Your task to perform on an android device: change the clock display to show seconds Image 0: 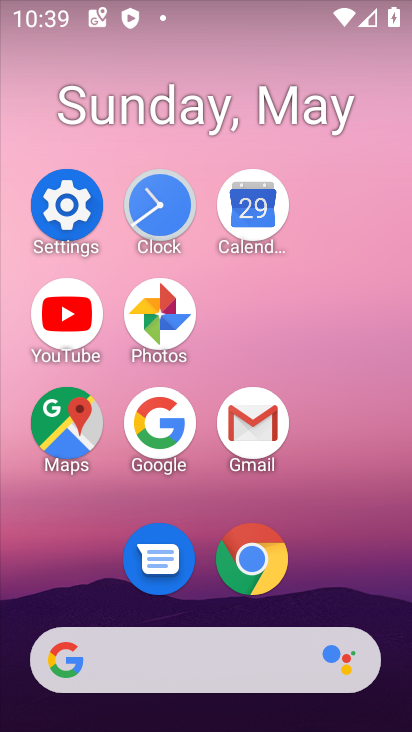
Step 0: click (154, 236)
Your task to perform on an android device: change the clock display to show seconds Image 1: 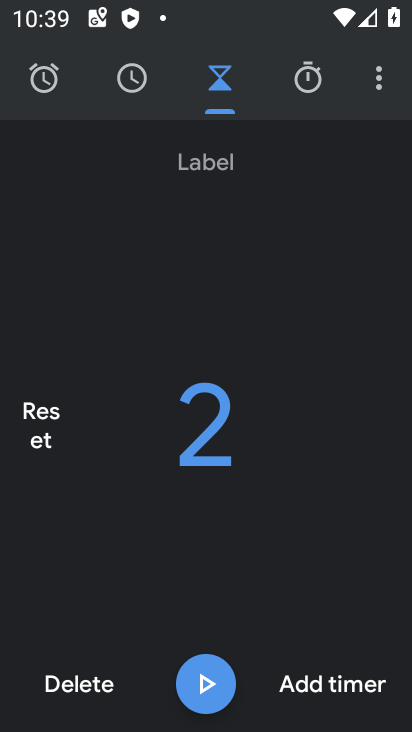
Step 1: click (396, 84)
Your task to perform on an android device: change the clock display to show seconds Image 2: 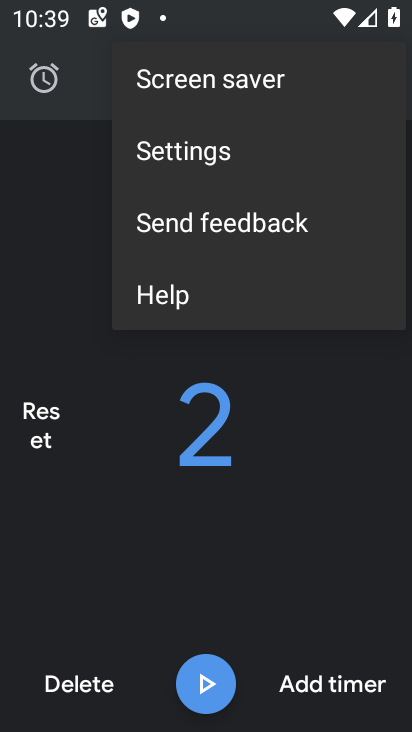
Step 2: click (215, 140)
Your task to perform on an android device: change the clock display to show seconds Image 3: 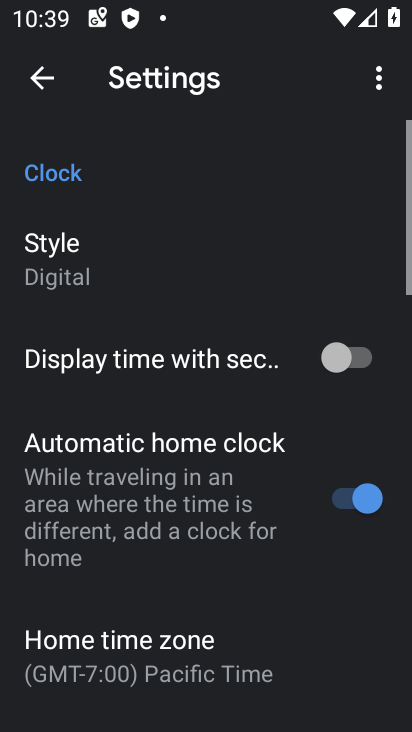
Step 3: click (369, 398)
Your task to perform on an android device: change the clock display to show seconds Image 4: 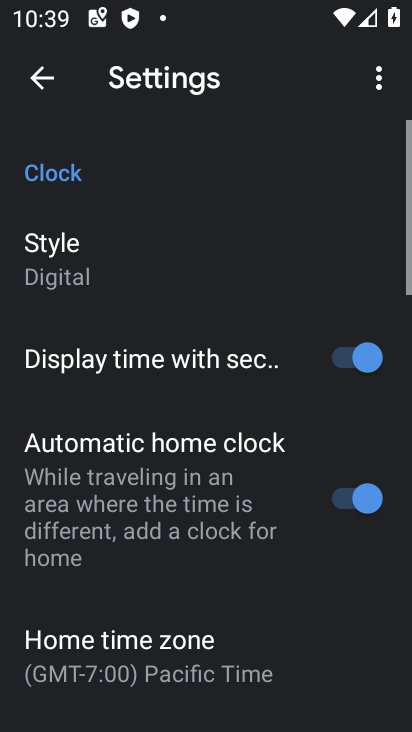
Step 4: task complete